Your task to perform on an android device: Go to privacy settings Image 0: 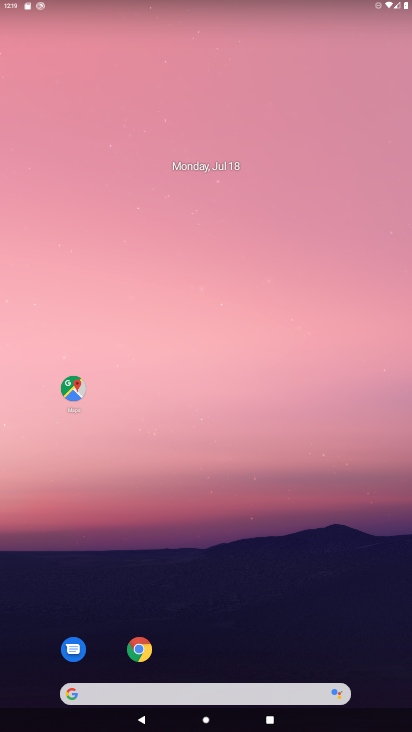
Step 0: drag from (243, 664) to (164, 50)
Your task to perform on an android device: Go to privacy settings Image 1: 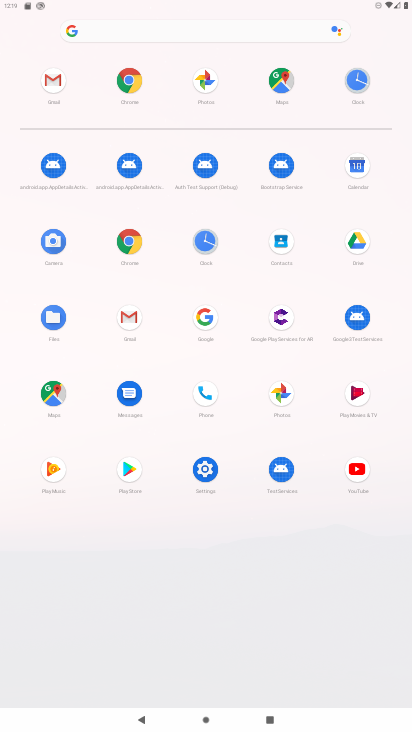
Step 1: click (204, 472)
Your task to perform on an android device: Go to privacy settings Image 2: 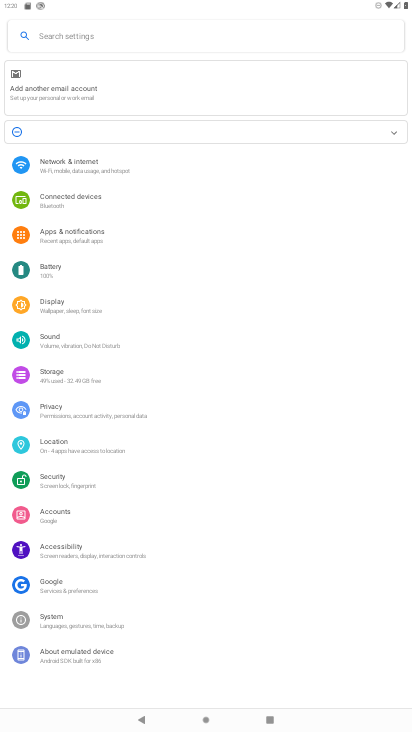
Step 2: drag from (184, 655) to (162, 318)
Your task to perform on an android device: Go to privacy settings Image 3: 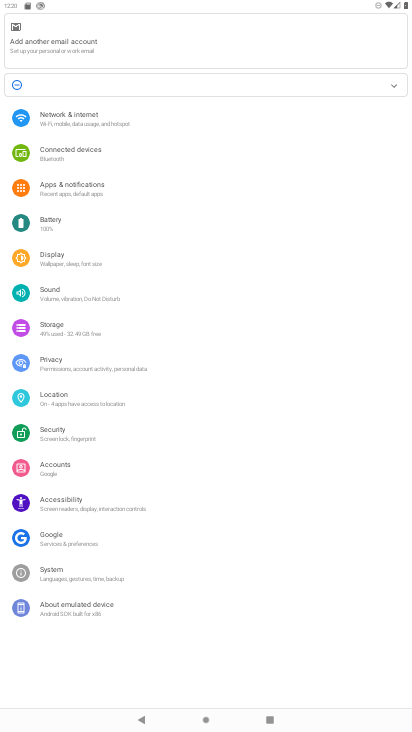
Step 3: click (67, 359)
Your task to perform on an android device: Go to privacy settings Image 4: 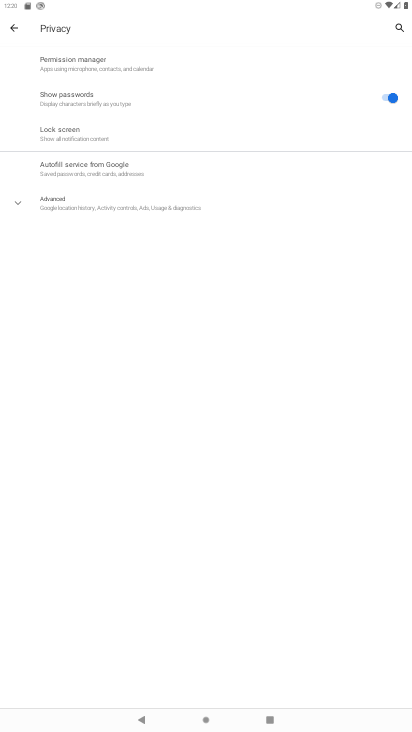
Step 4: task complete